Your task to perform on an android device: turn off javascript in the chrome app Image 0: 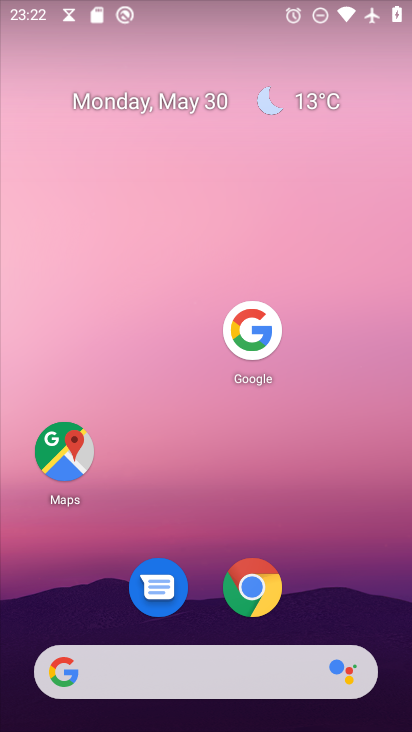
Step 0: click (253, 594)
Your task to perform on an android device: turn off javascript in the chrome app Image 1: 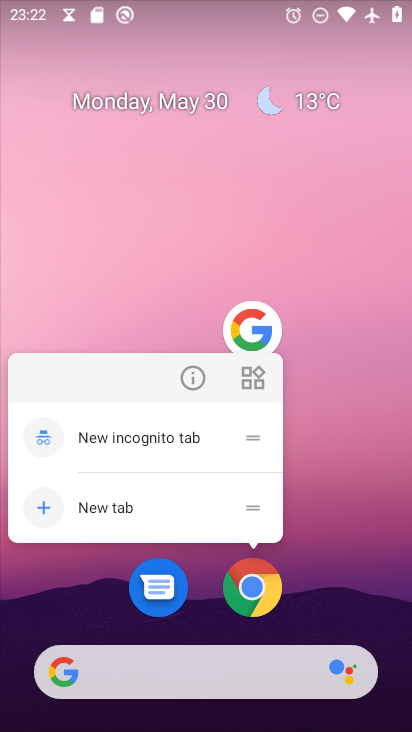
Step 1: click (255, 590)
Your task to perform on an android device: turn off javascript in the chrome app Image 2: 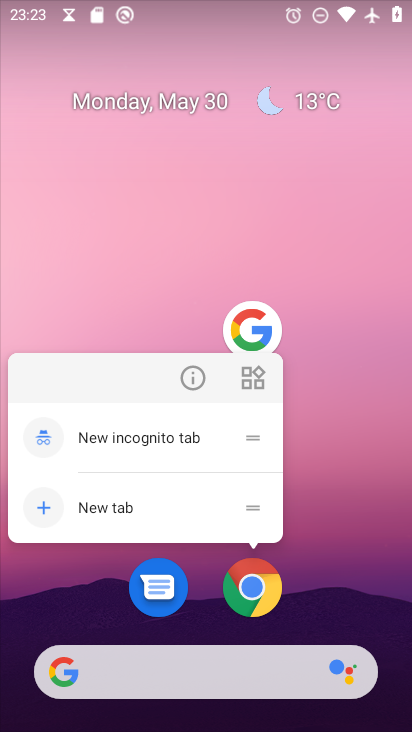
Step 2: click (255, 590)
Your task to perform on an android device: turn off javascript in the chrome app Image 3: 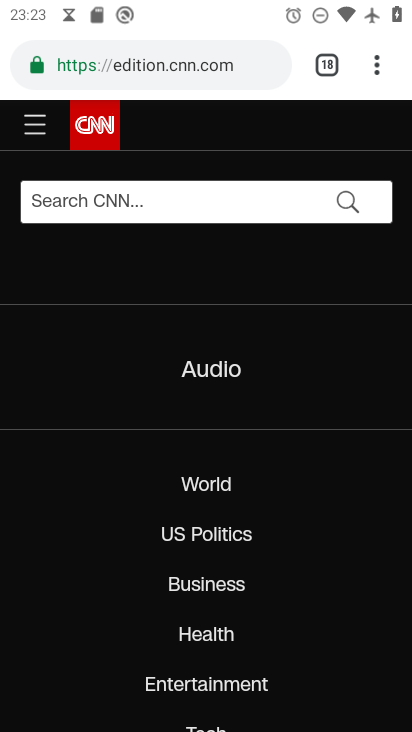
Step 3: drag from (376, 67) to (231, 643)
Your task to perform on an android device: turn off javascript in the chrome app Image 4: 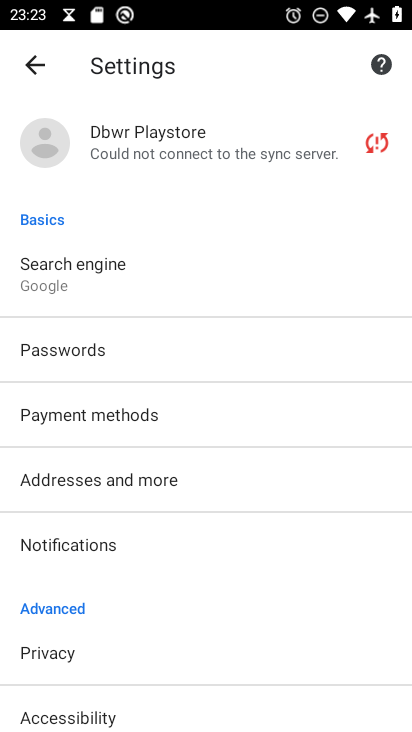
Step 4: drag from (171, 629) to (252, 230)
Your task to perform on an android device: turn off javascript in the chrome app Image 5: 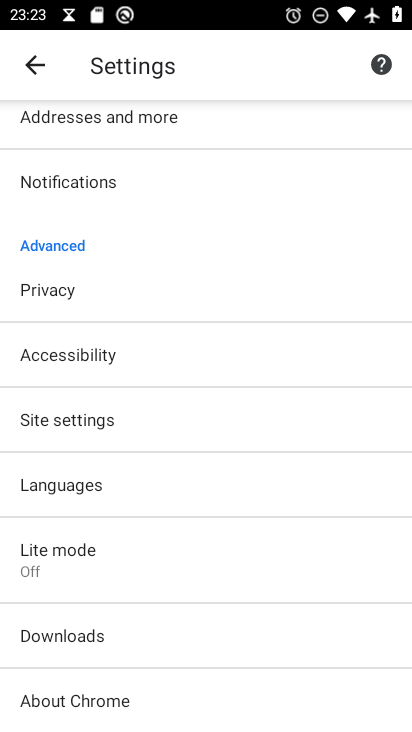
Step 5: click (86, 413)
Your task to perform on an android device: turn off javascript in the chrome app Image 6: 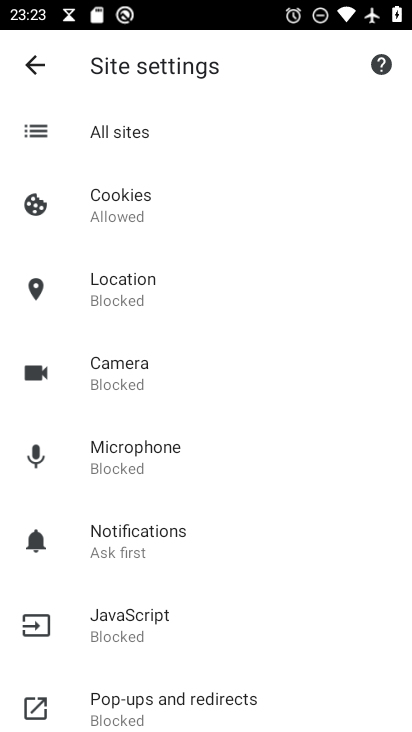
Step 6: click (165, 624)
Your task to perform on an android device: turn off javascript in the chrome app Image 7: 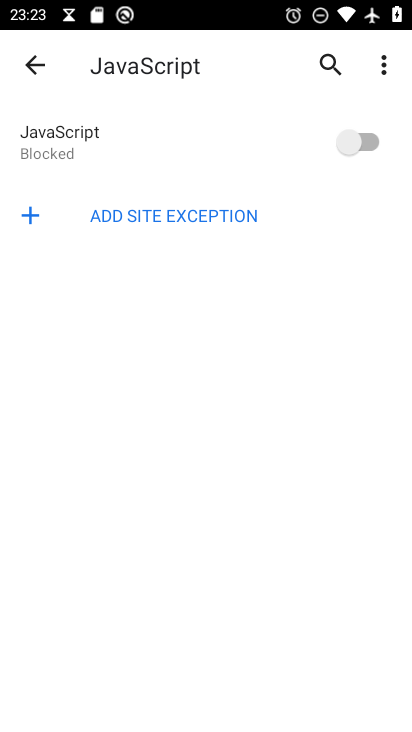
Step 7: task complete